Your task to perform on an android device: Go to Wikipedia Image 0: 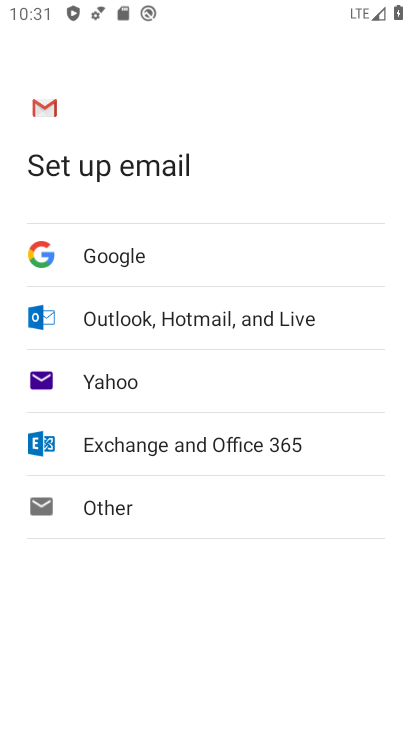
Step 0: press home button
Your task to perform on an android device: Go to Wikipedia Image 1: 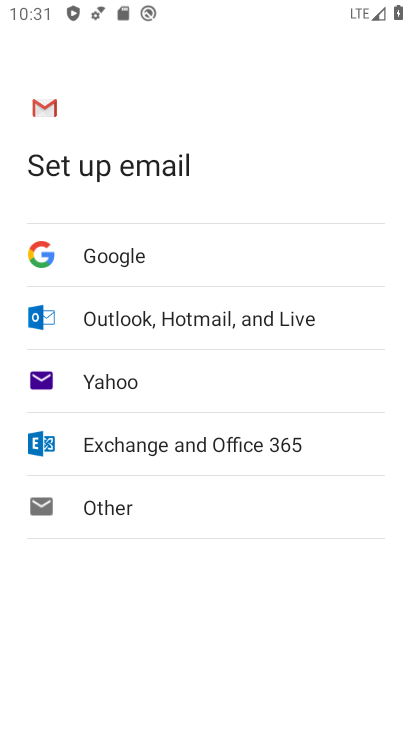
Step 1: press home button
Your task to perform on an android device: Go to Wikipedia Image 2: 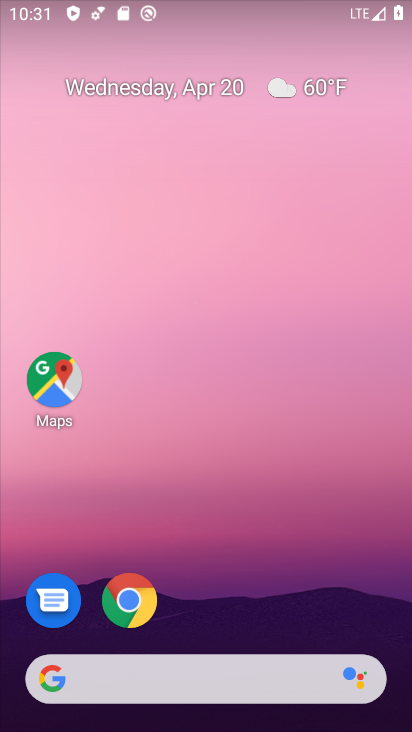
Step 2: click (140, 608)
Your task to perform on an android device: Go to Wikipedia Image 3: 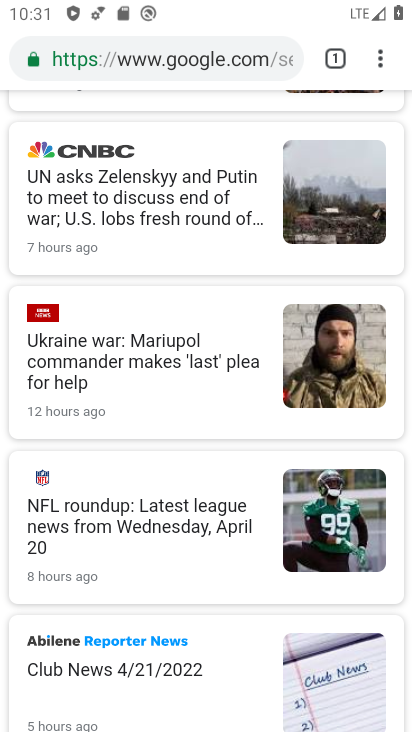
Step 3: drag from (259, 108) to (235, 721)
Your task to perform on an android device: Go to Wikipedia Image 4: 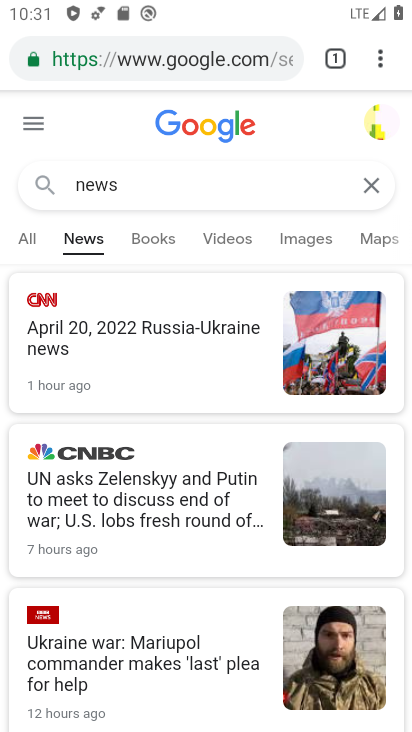
Step 4: click (204, 58)
Your task to perform on an android device: Go to Wikipedia Image 5: 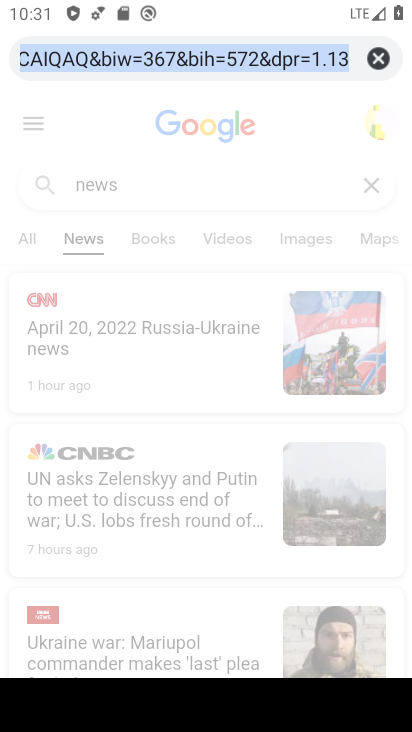
Step 5: type "wikipedia"
Your task to perform on an android device: Go to Wikipedia Image 6: 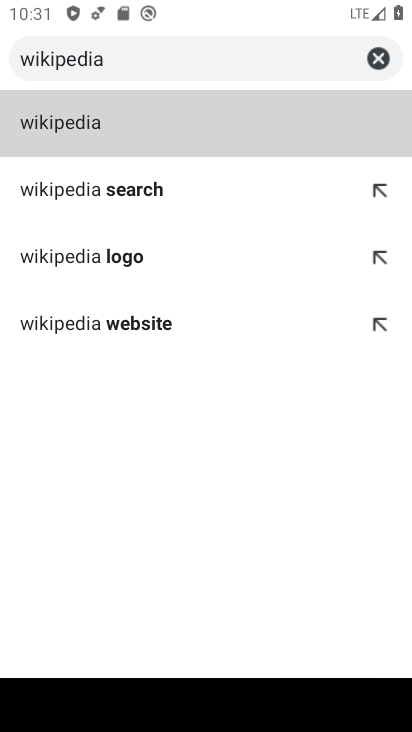
Step 6: click (60, 119)
Your task to perform on an android device: Go to Wikipedia Image 7: 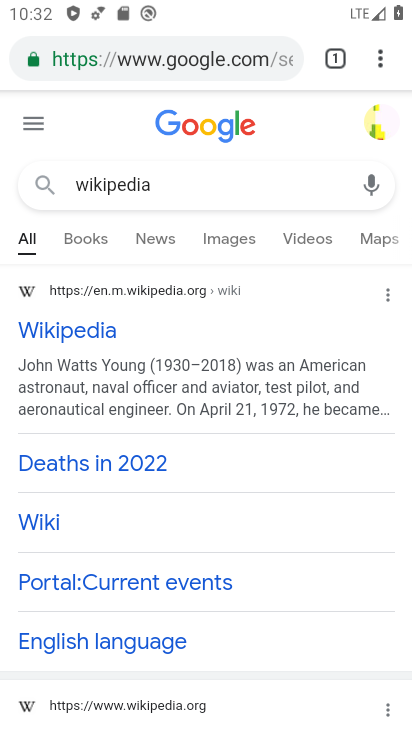
Step 7: click (82, 325)
Your task to perform on an android device: Go to Wikipedia Image 8: 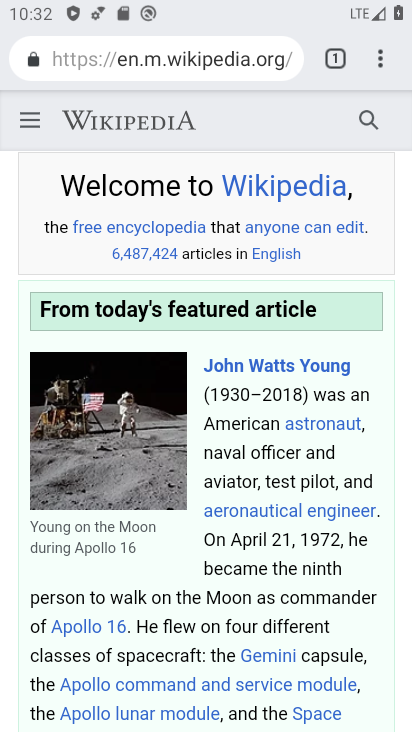
Step 8: task complete